Your task to perform on an android device: Open Android settings Image 0: 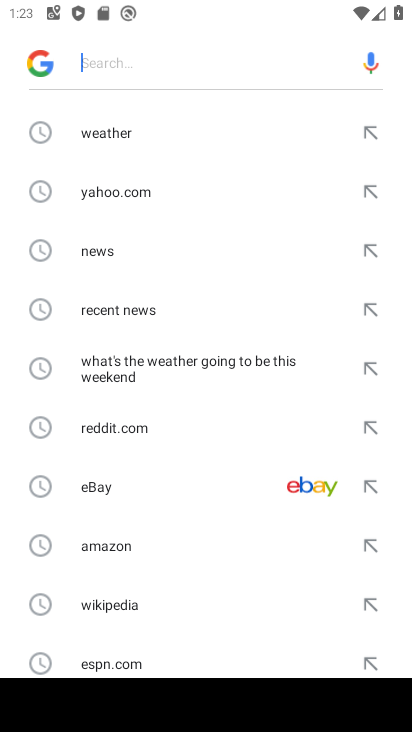
Step 0: press home button
Your task to perform on an android device: Open Android settings Image 1: 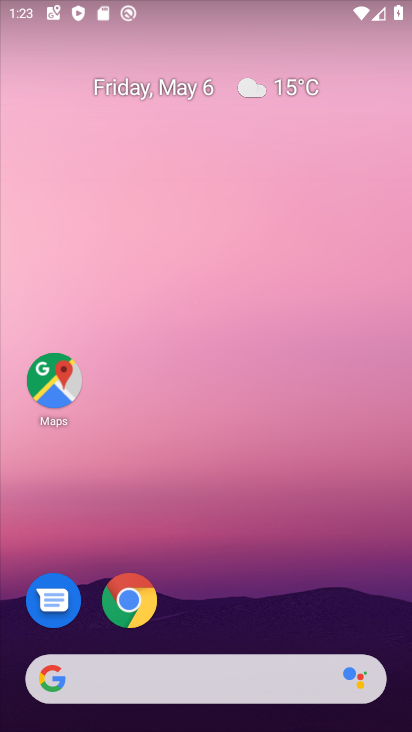
Step 1: drag from (330, 612) to (335, 6)
Your task to perform on an android device: Open Android settings Image 2: 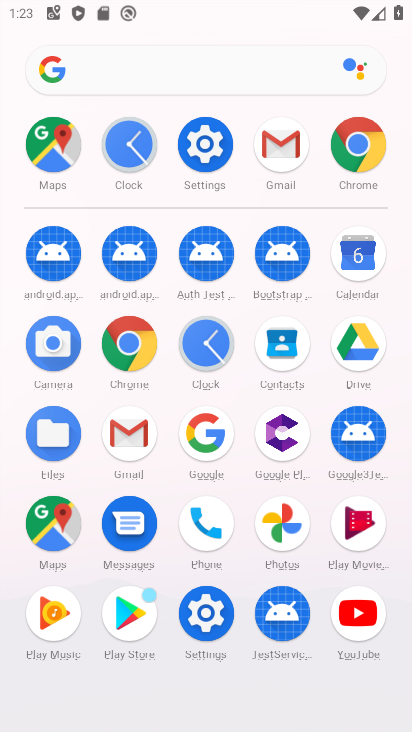
Step 2: click (205, 626)
Your task to perform on an android device: Open Android settings Image 3: 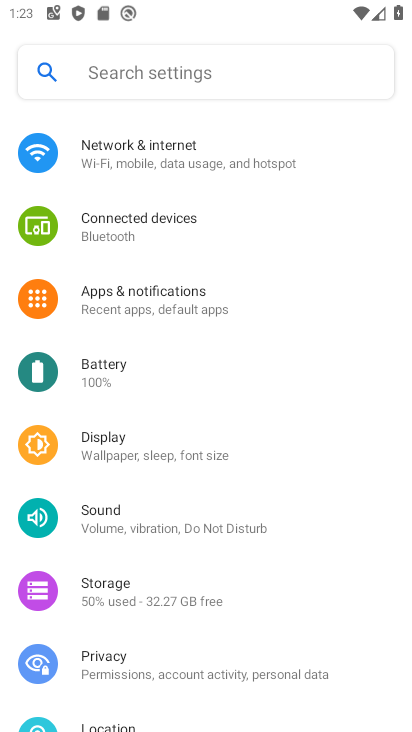
Step 3: drag from (205, 626) to (300, 85)
Your task to perform on an android device: Open Android settings Image 4: 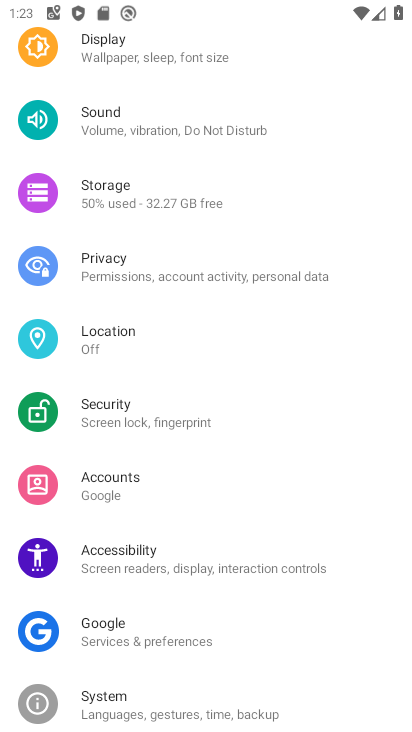
Step 4: drag from (162, 666) to (337, 22)
Your task to perform on an android device: Open Android settings Image 5: 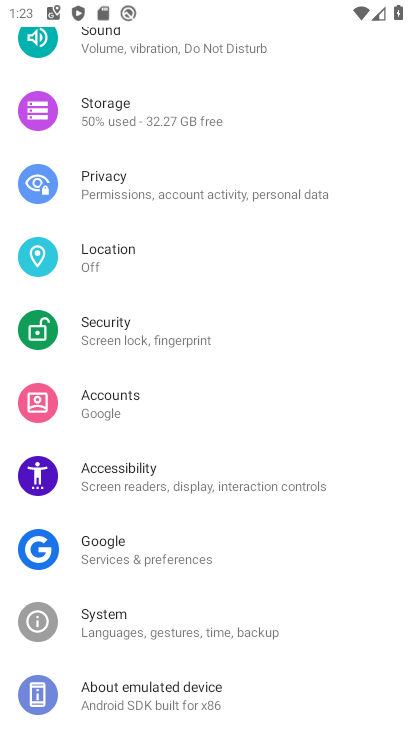
Step 5: click (189, 698)
Your task to perform on an android device: Open Android settings Image 6: 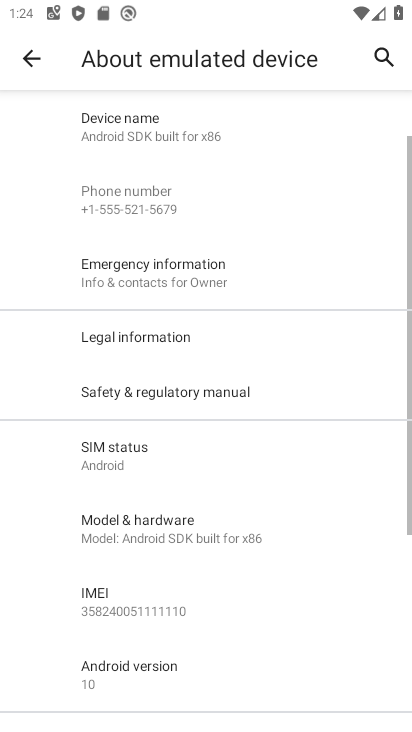
Step 6: click (163, 672)
Your task to perform on an android device: Open Android settings Image 7: 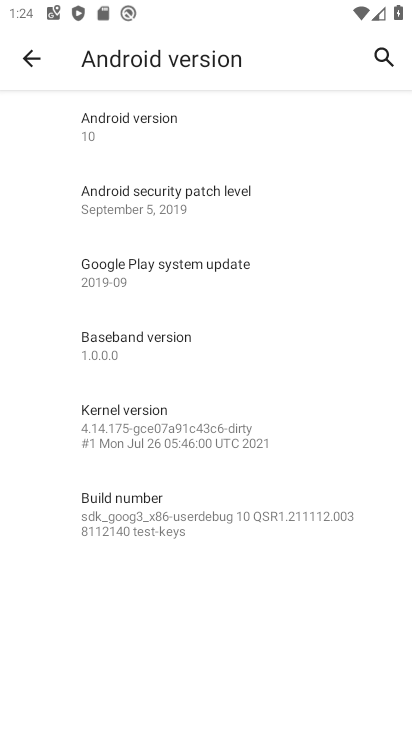
Step 7: task complete